Your task to perform on an android device: uninstall "Pinterest" Image 0: 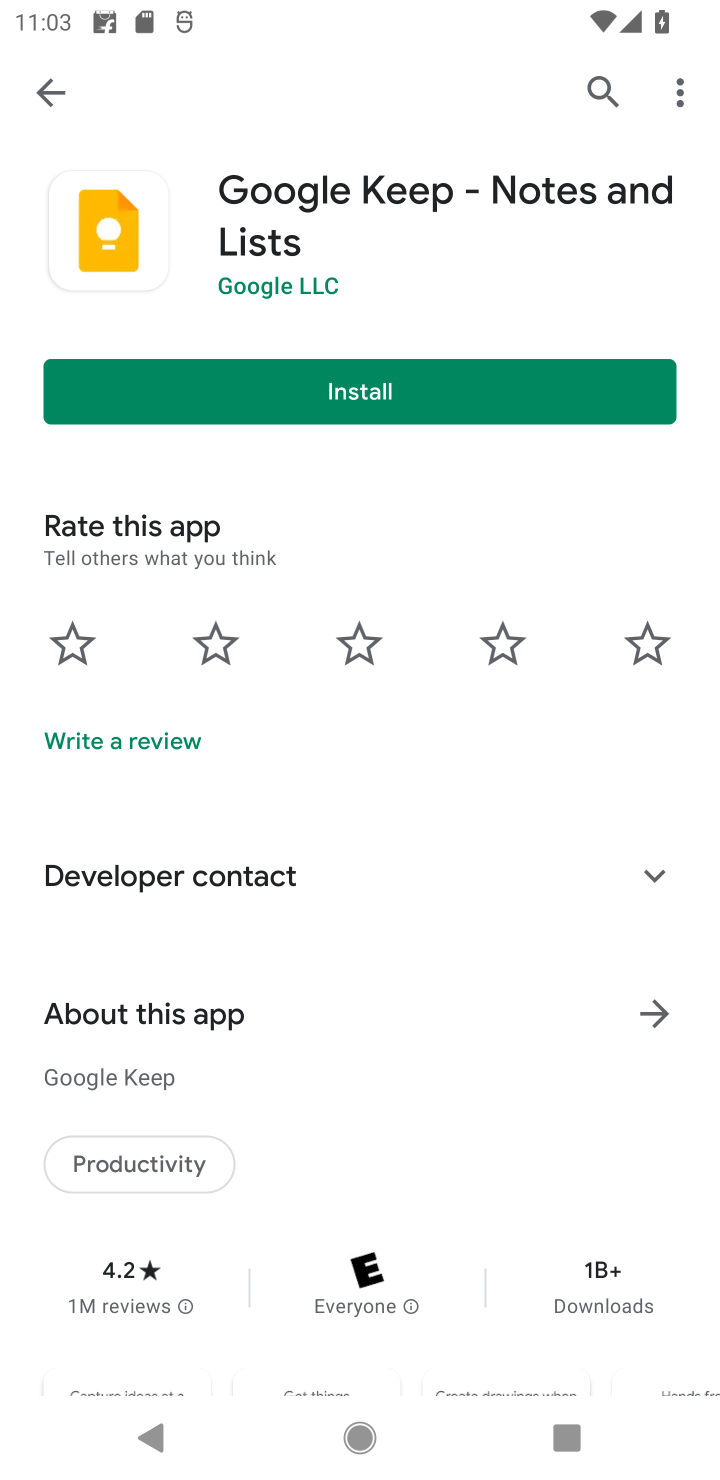
Step 0: press back button
Your task to perform on an android device: uninstall "Pinterest" Image 1: 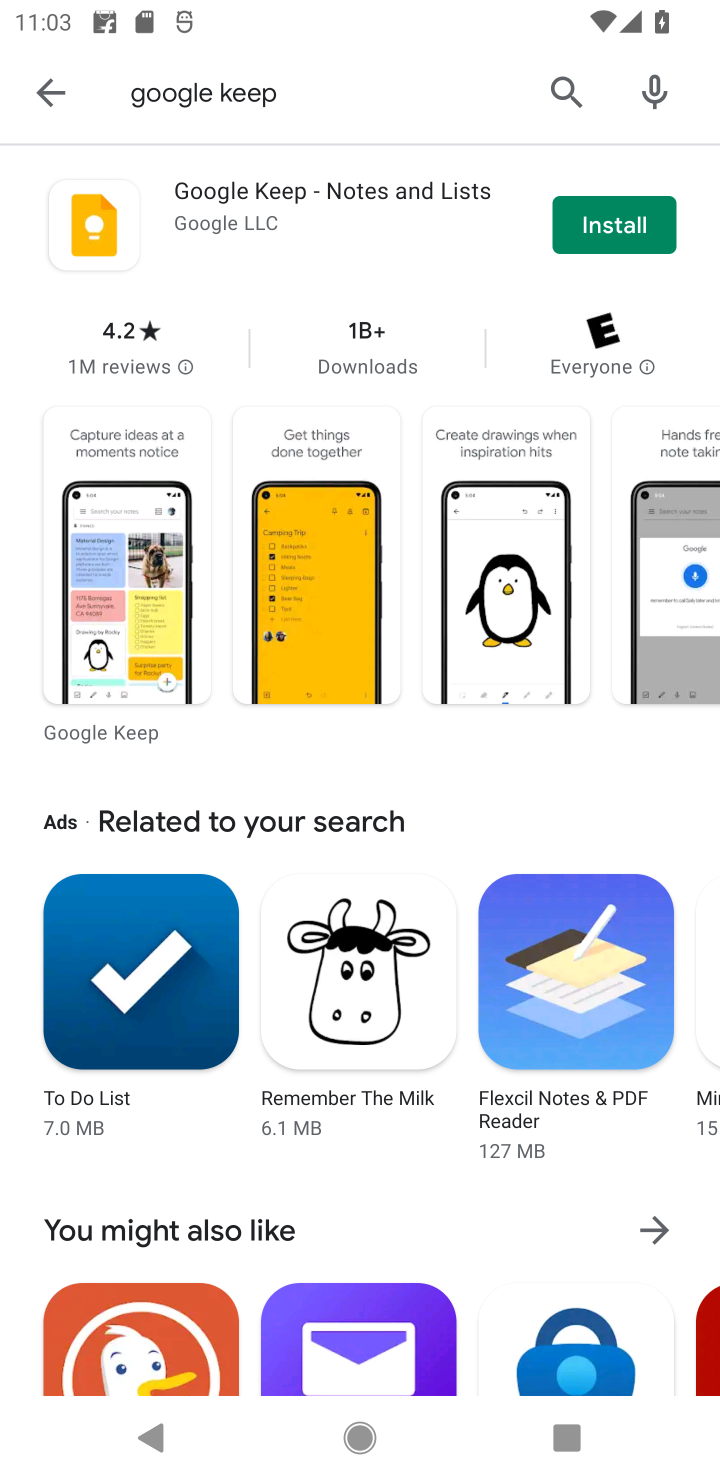
Step 1: press home button
Your task to perform on an android device: uninstall "Pinterest" Image 2: 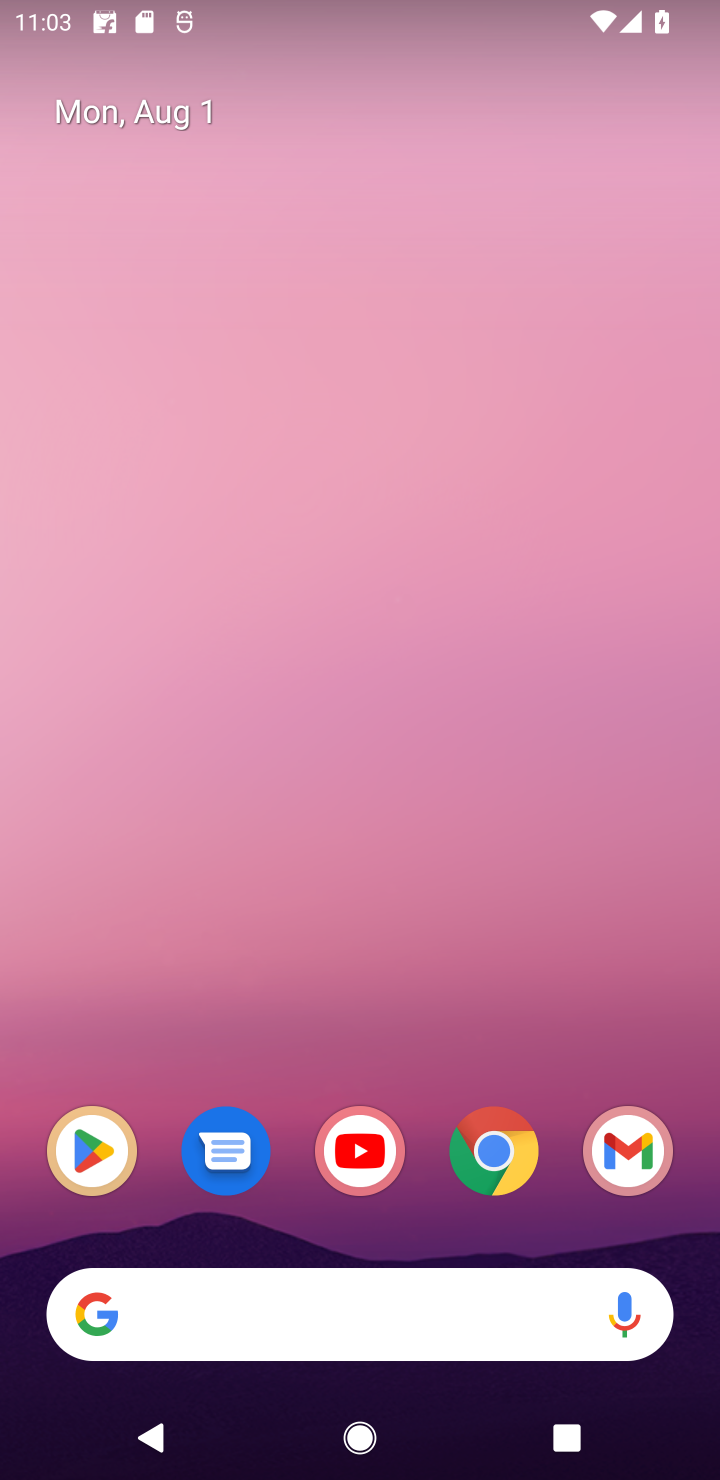
Step 2: click (78, 1139)
Your task to perform on an android device: uninstall "Pinterest" Image 3: 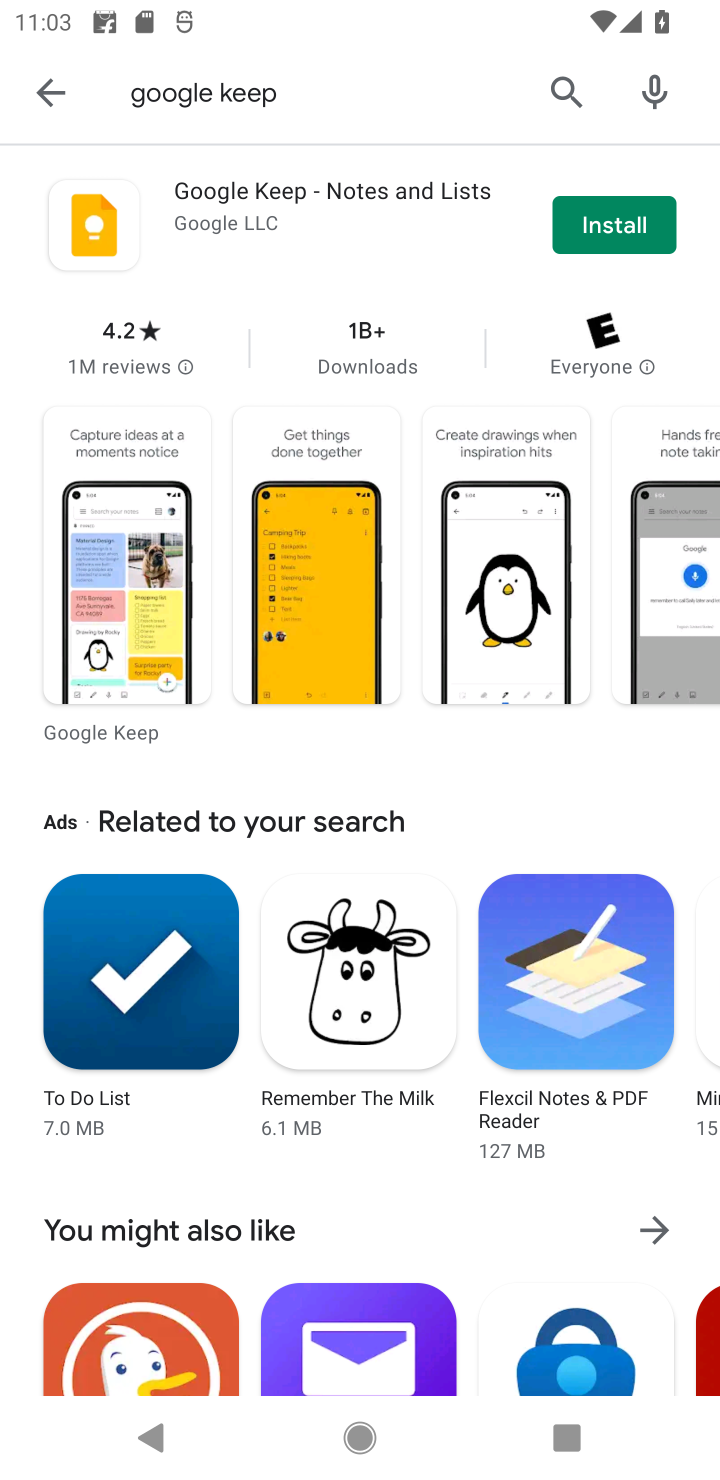
Step 3: click (581, 111)
Your task to perform on an android device: uninstall "Pinterest" Image 4: 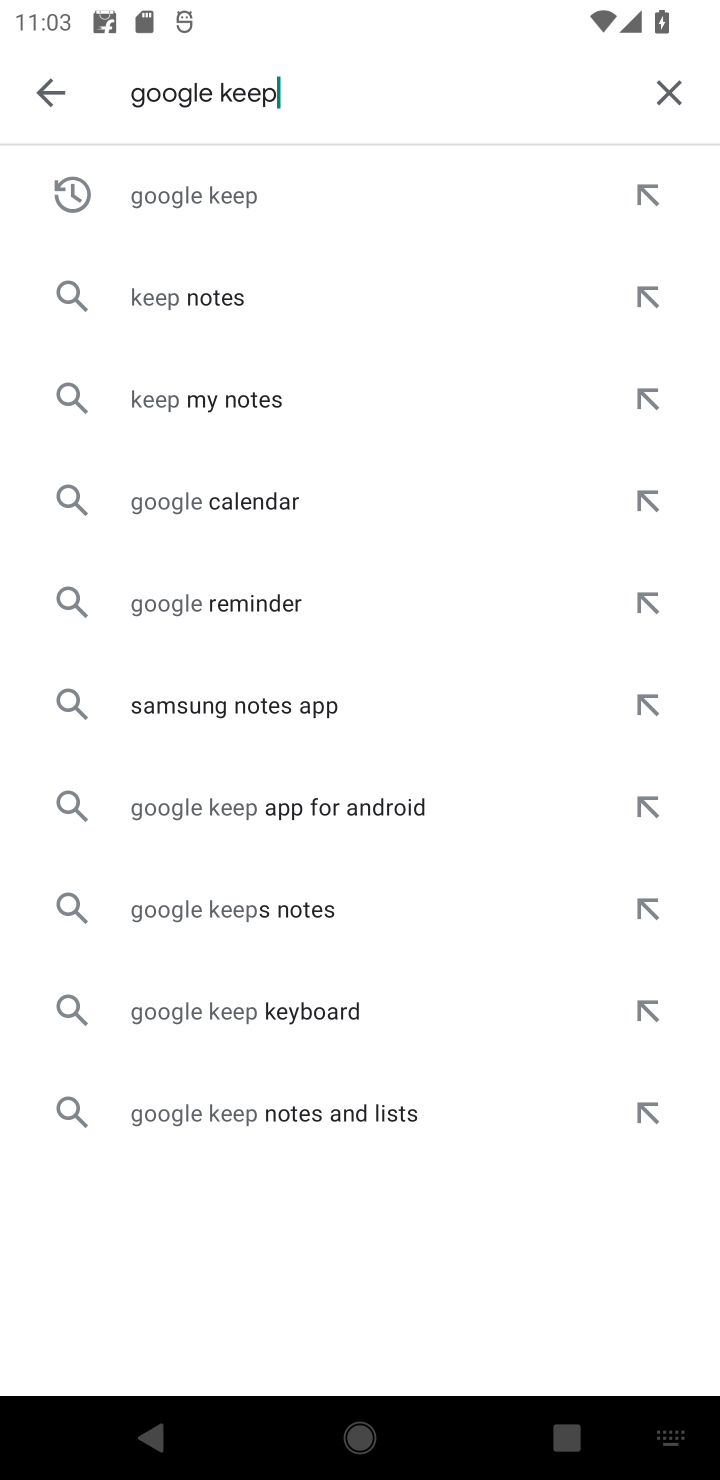
Step 4: click (658, 106)
Your task to perform on an android device: uninstall "Pinterest" Image 5: 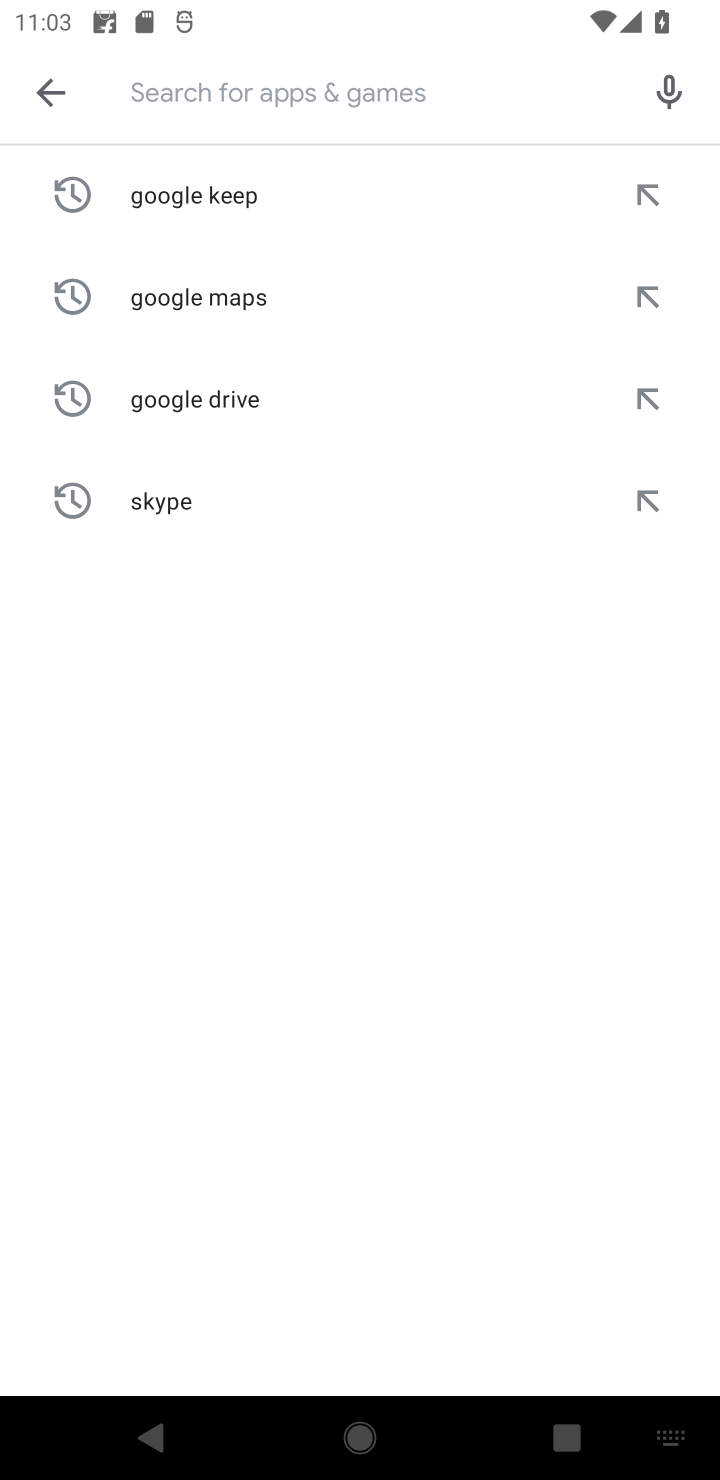
Step 5: type "Pinterest"
Your task to perform on an android device: uninstall "Pinterest" Image 6: 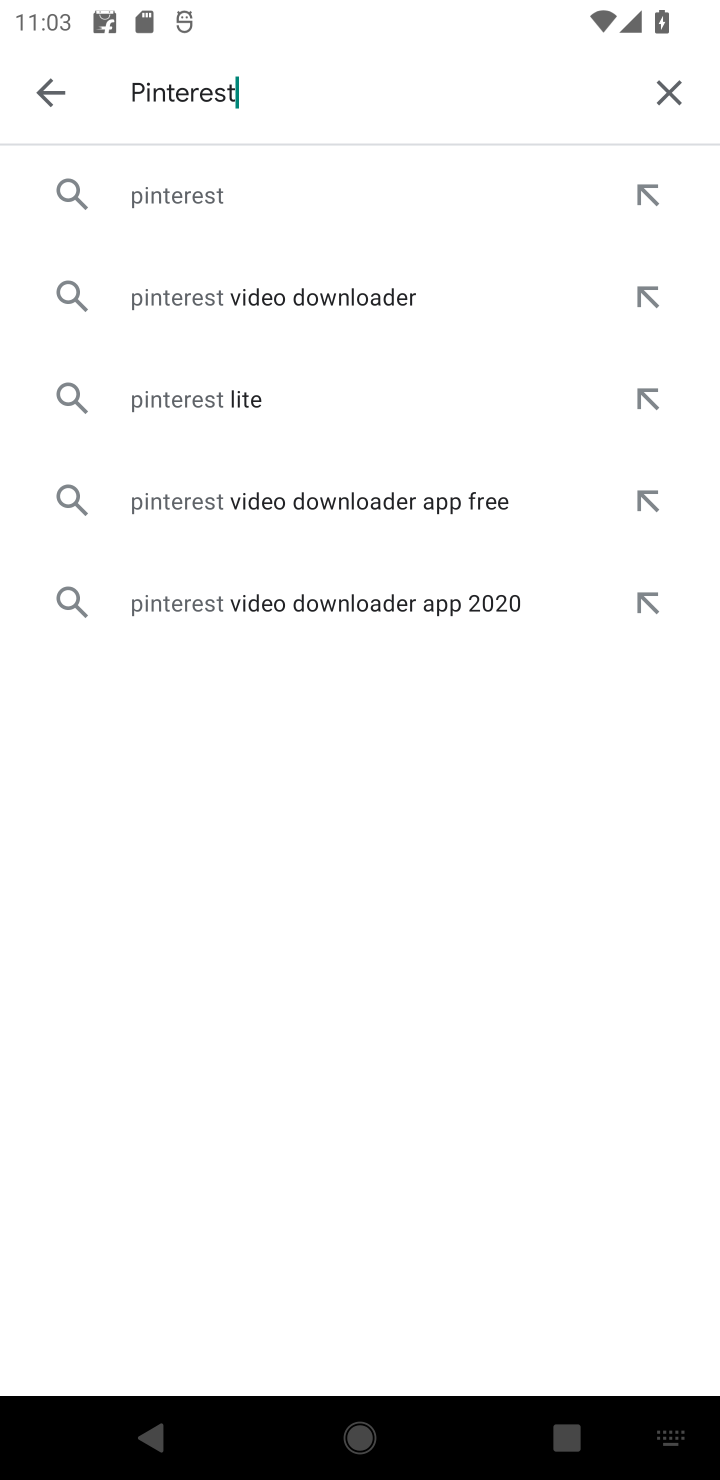
Step 6: click (305, 187)
Your task to perform on an android device: uninstall "Pinterest" Image 7: 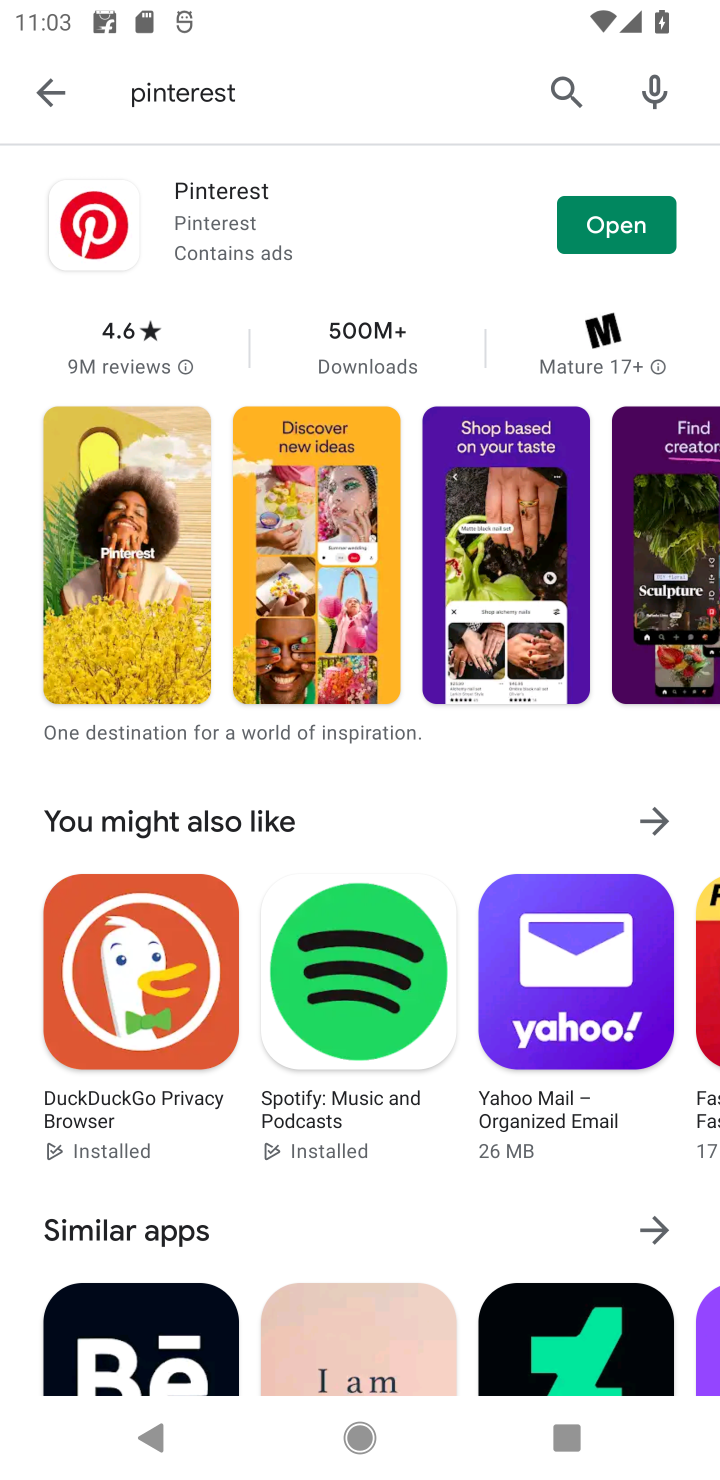
Step 7: click (303, 195)
Your task to perform on an android device: uninstall "Pinterest" Image 8: 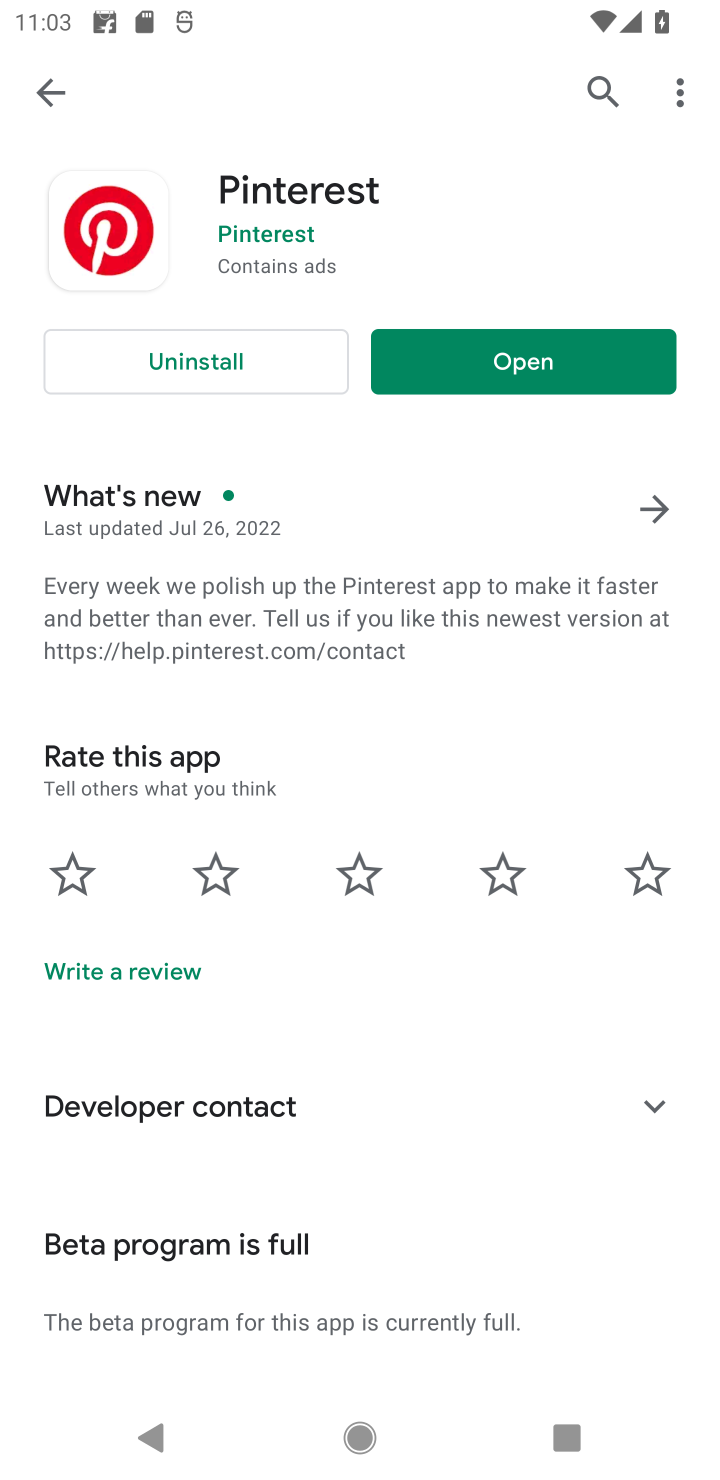
Step 8: click (218, 373)
Your task to perform on an android device: uninstall "Pinterest" Image 9: 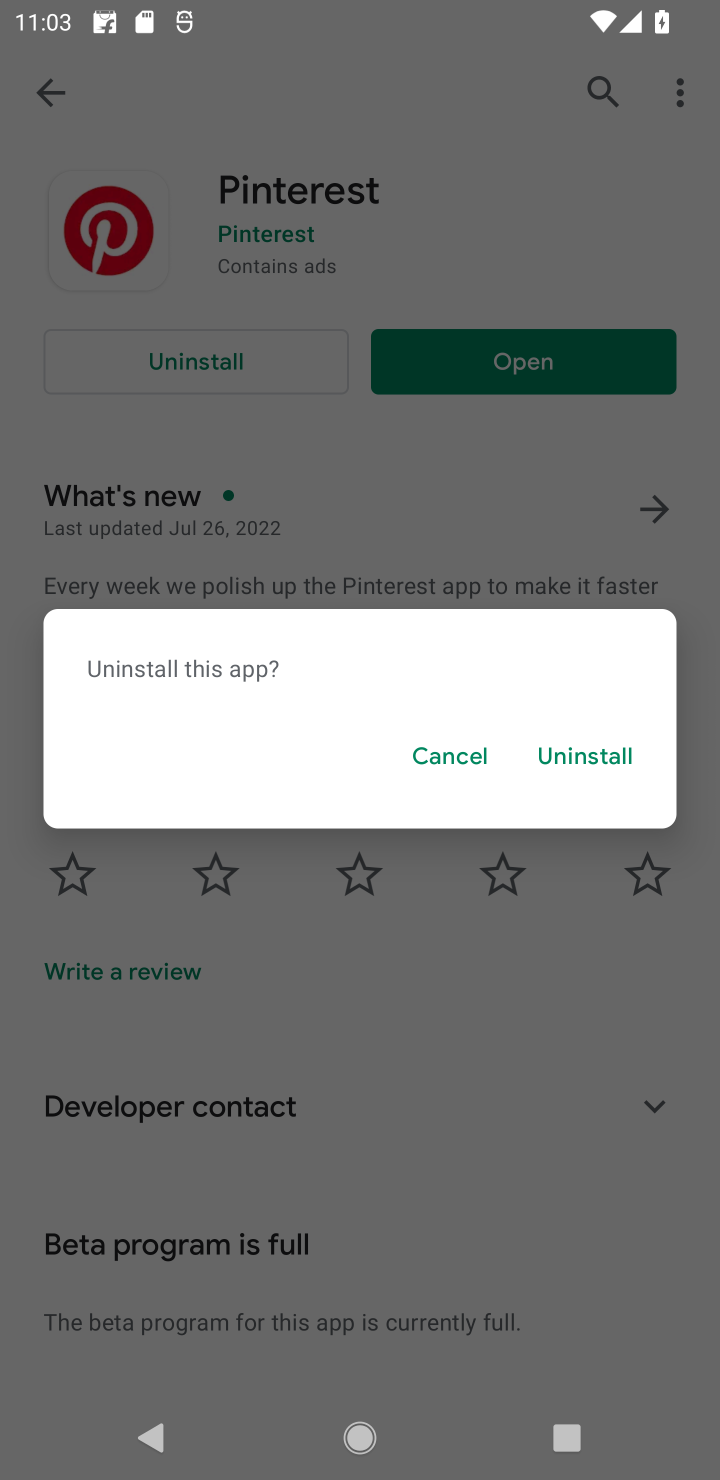
Step 9: click (578, 757)
Your task to perform on an android device: uninstall "Pinterest" Image 10: 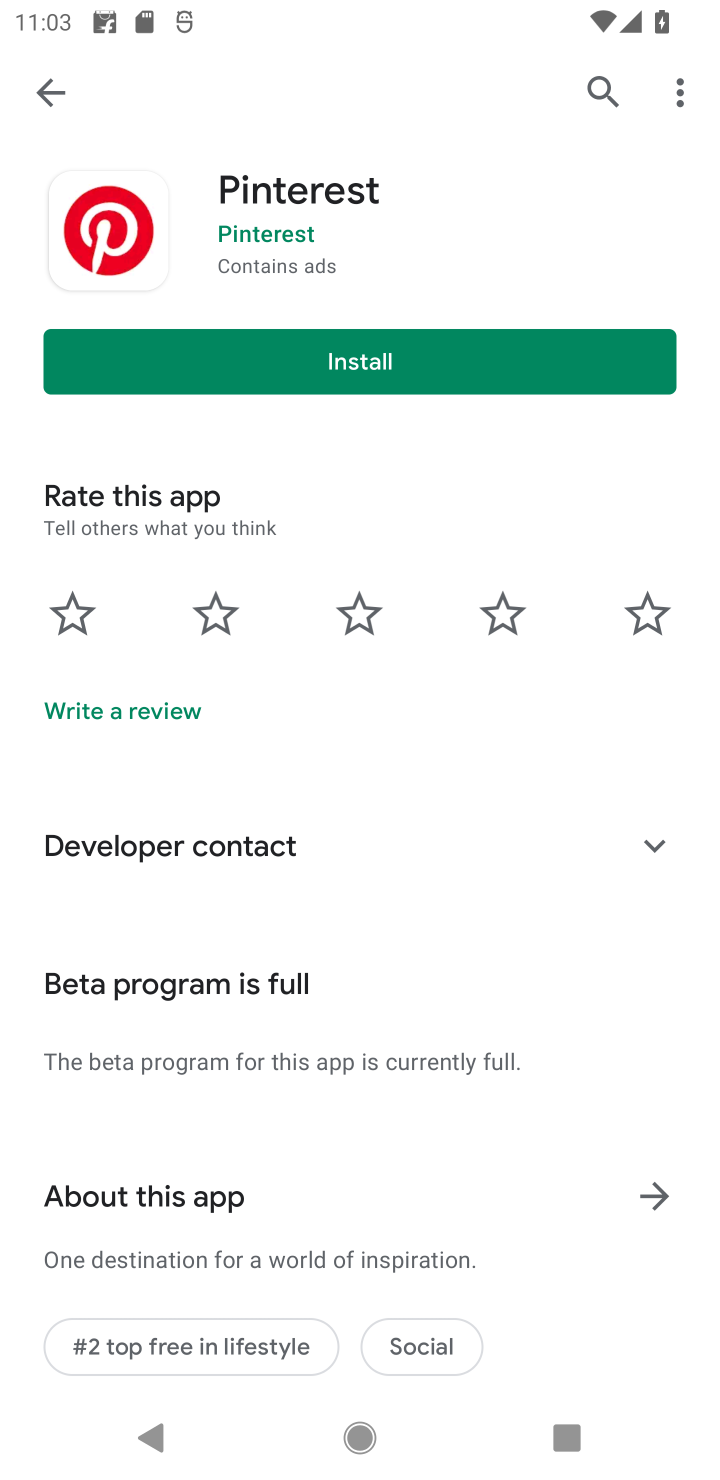
Step 10: task complete